Your task to perform on an android device: open wifi settings Image 0: 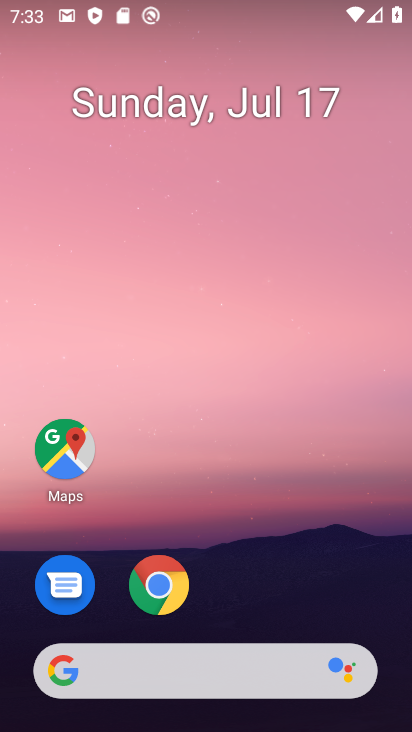
Step 0: drag from (221, 671) to (360, 74)
Your task to perform on an android device: open wifi settings Image 1: 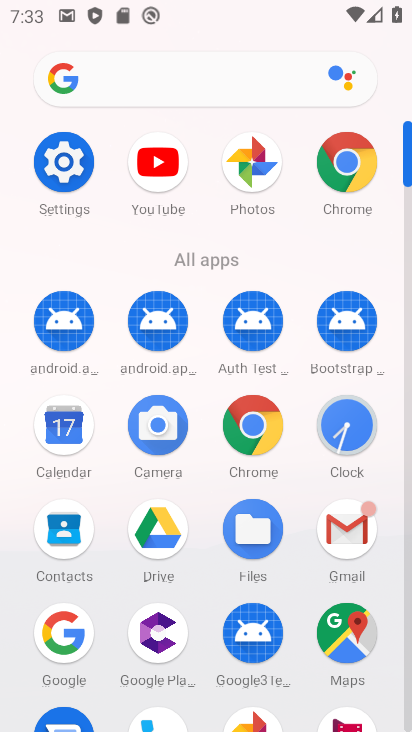
Step 1: click (73, 162)
Your task to perform on an android device: open wifi settings Image 2: 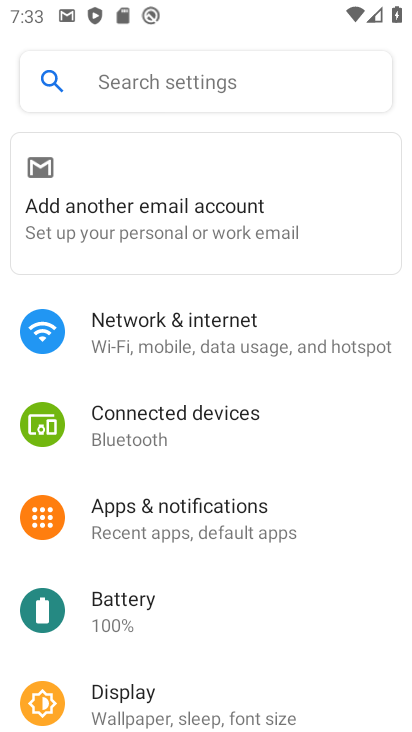
Step 2: click (239, 329)
Your task to perform on an android device: open wifi settings Image 3: 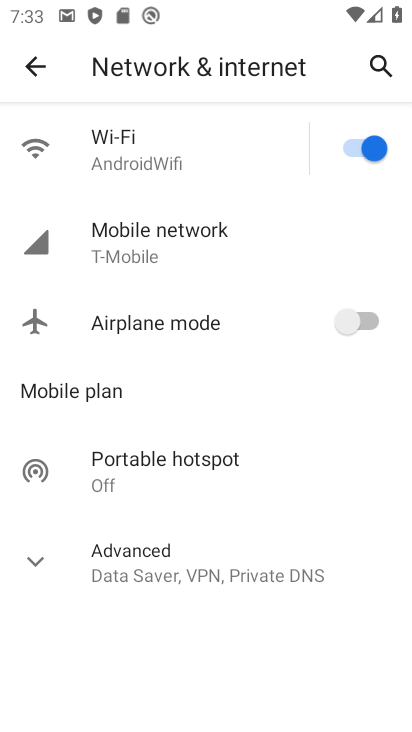
Step 3: click (139, 157)
Your task to perform on an android device: open wifi settings Image 4: 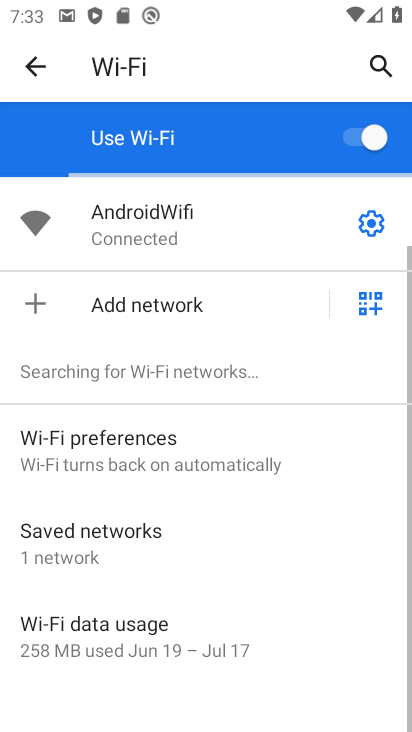
Step 4: task complete